Your task to perform on an android device: turn off location Image 0: 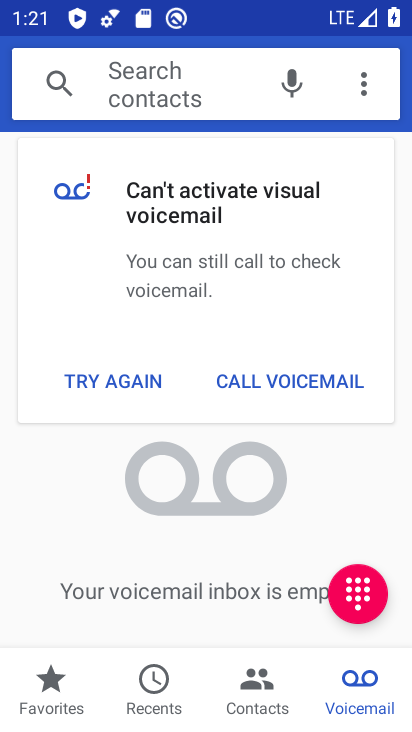
Step 0: press home button
Your task to perform on an android device: turn off location Image 1: 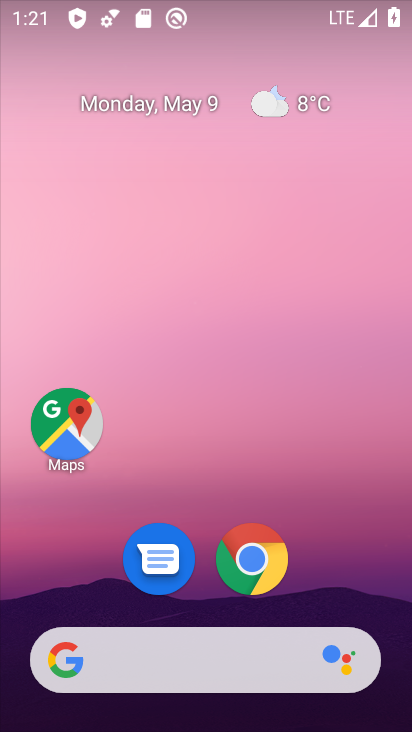
Step 1: drag from (328, 526) to (259, 11)
Your task to perform on an android device: turn off location Image 2: 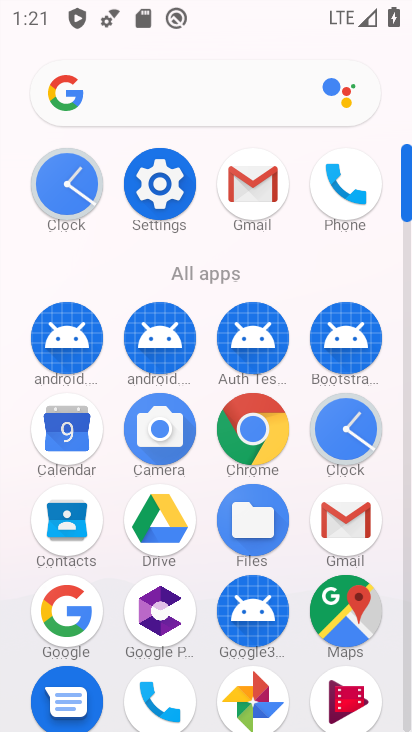
Step 2: click (148, 170)
Your task to perform on an android device: turn off location Image 3: 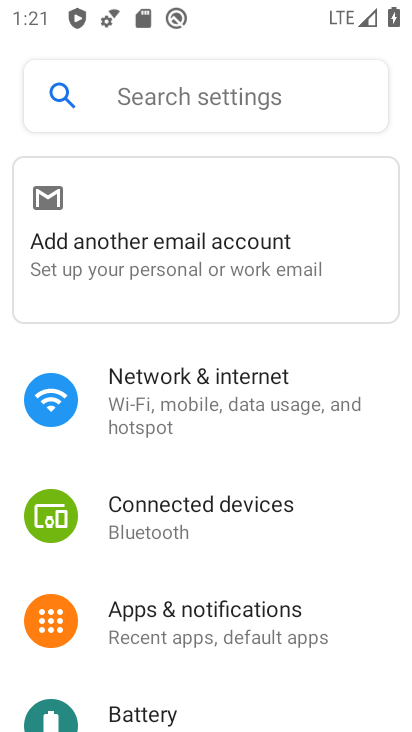
Step 3: drag from (230, 662) to (172, 115)
Your task to perform on an android device: turn off location Image 4: 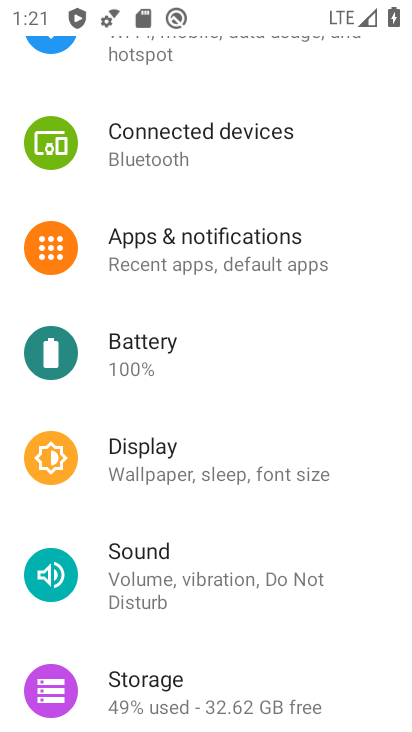
Step 4: drag from (223, 534) to (173, 67)
Your task to perform on an android device: turn off location Image 5: 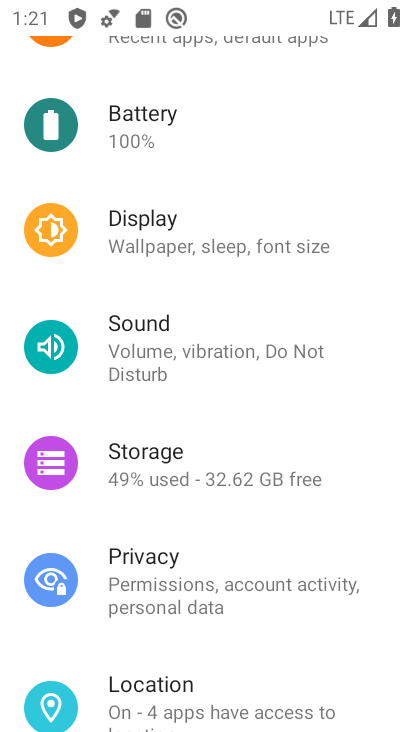
Step 5: click (168, 682)
Your task to perform on an android device: turn off location Image 6: 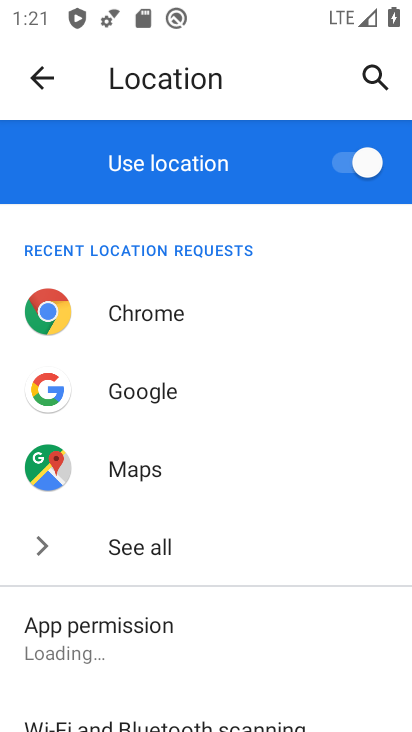
Step 6: click (359, 167)
Your task to perform on an android device: turn off location Image 7: 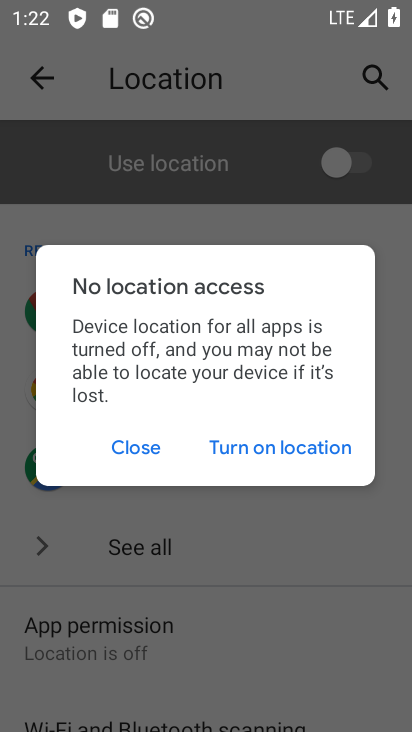
Step 7: click (145, 452)
Your task to perform on an android device: turn off location Image 8: 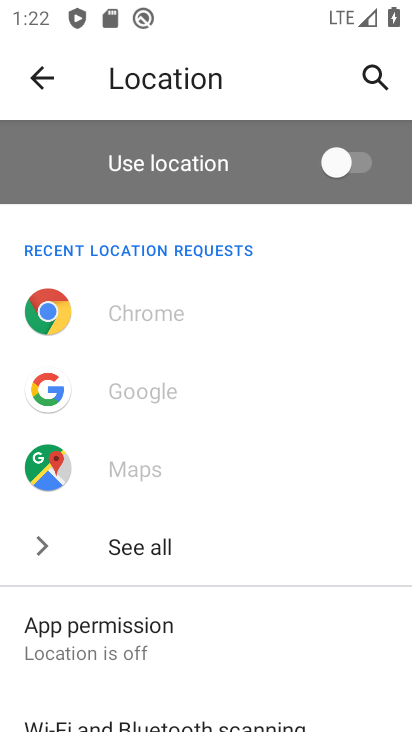
Step 8: task complete